Your task to perform on an android device: Clear the cart on walmart. Search for "acer nitro" on walmart, select the first entry, add it to the cart, then select checkout. Image 0: 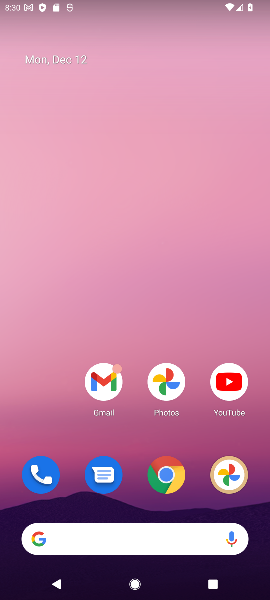
Step 0: click (167, 474)
Your task to perform on an android device: Clear the cart on walmart. Search for "acer nitro" on walmart, select the first entry, add it to the cart, then select checkout. Image 1: 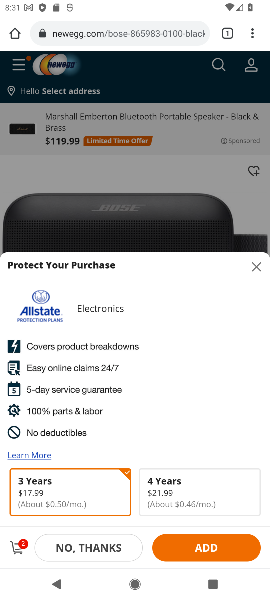
Step 1: click (168, 39)
Your task to perform on an android device: Clear the cart on walmart. Search for "acer nitro" on walmart, select the first entry, add it to the cart, then select checkout. Image 2: 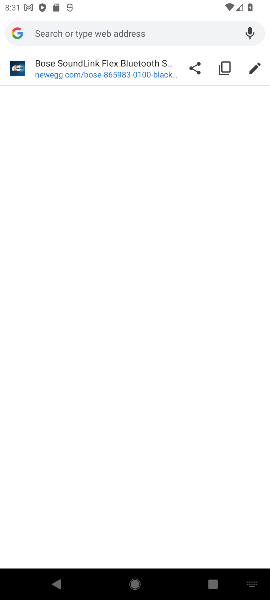
Step 2: type "walmart"
Your task to perform on an android device: Clear the cart on walmart. Search for "acer nitro" on walmart, select the first entry, add it to the cart, then select checkout. Image 3: 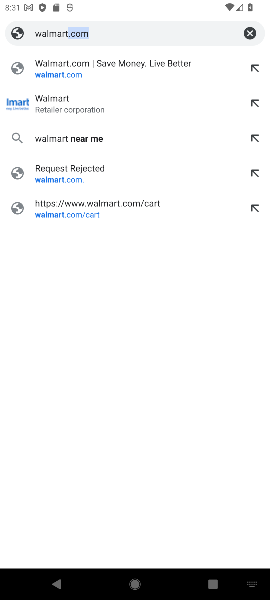
Step 3: click (41, 105)
Your task to perform on an android device: Clear the cart on walmart. Search for "acer nitro" on walmart, select the first entry, add it to the cart, then select checkout. Image 4: 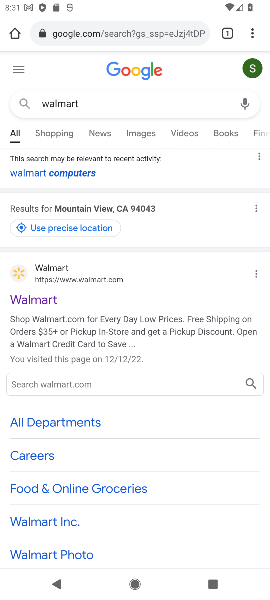
Step 4: click (42, 296)
Your task to perform on an android device: Clear the cart on walmart. Search for "acer nitro" on walmart, select the first entry, add it to the cart, then select checkout. Image 5: 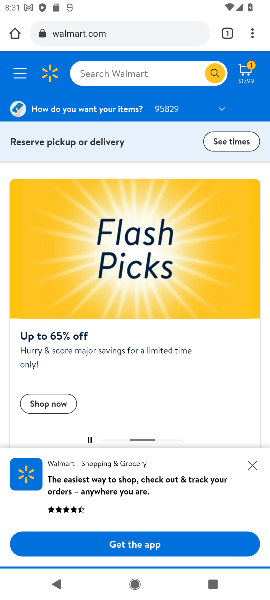
Step 5: click (155, 74)
Your task to perform on an android device: Clear the cart on walmart. Search for "acer nitro" on walmart, select the first entry, add it to the cart, then select checkout. Image 6: 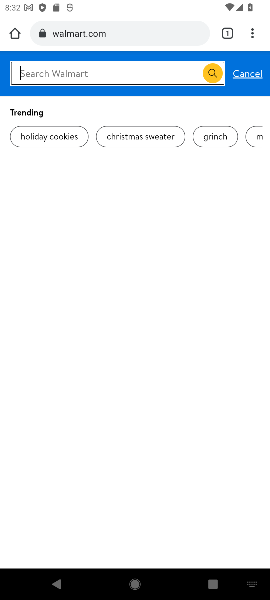
Step 6: type "acer nitro"
Your task to perform on an android device: Clear the cart on walmart. Search for "acer nitro" on walmart, select the first entry, add it to the cart, then select checkout. Image 7: 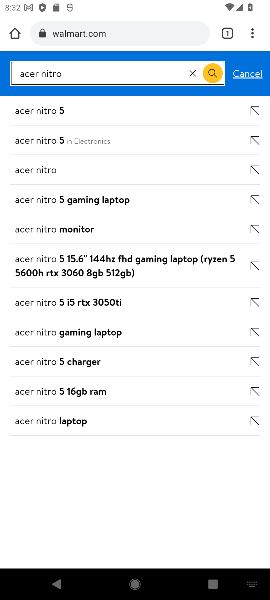
Step 7: click (48, 167)
Your task to perform on an android device: Clear the cart on walmart. Search for "acer nitro" on walmart, select the first entry, add it to the cart, then select checkout. Image 8: 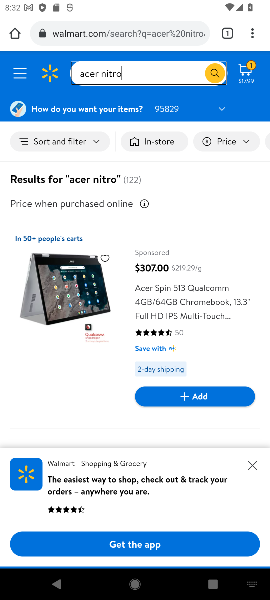
Step 8: click (186, 287)
Your task to perform on an android device: Clear the cart on walmart. Search for "acer nitro" on walmart, select the first entry, add it to the cart, then select checkout. Image 9: 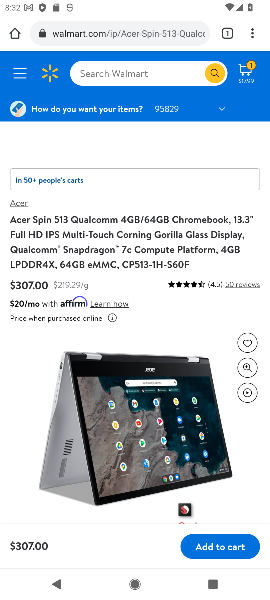
Step 9: click (207, 546)
Your task to perform on an android device: Clear the cart on walmart. Search for "acer nitro" on walmart, select the first entry, add it to the cart, then select checkout. Image 10: 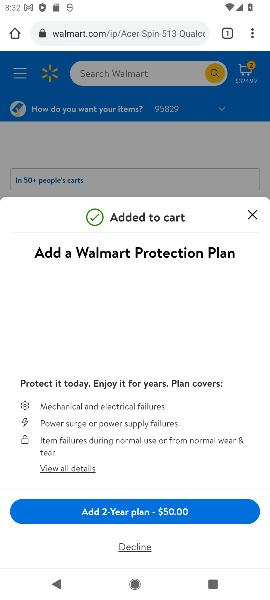
Step 10: click (136, 550)
Your task to perform on an android device: Clear the cart on walmart. Search for "acer nitro" on walmart, select the first entry, add it to the cart, then select checkout. Image 11: 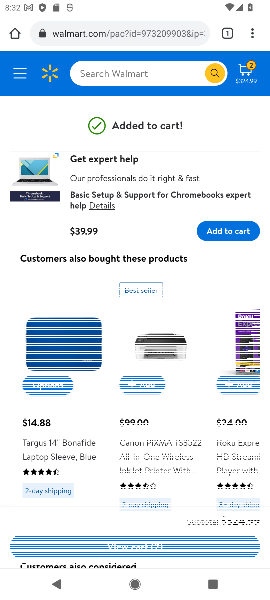
Step 11: click (249, 65)
Your task to perform on an android device: Clear the cart on walmart. Search for "acer nitro" on walmart, select the first entry, add it to the cart, then select checkout. Image 12: 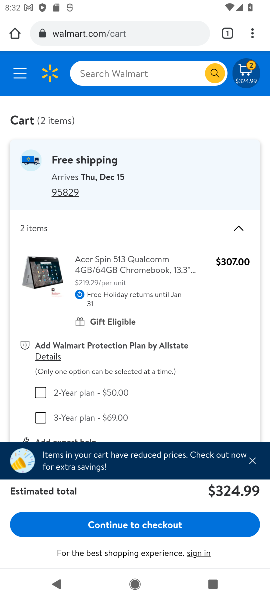
Step 12: click (143, 523)
Your task to perform on an android device: Clear the cart on walmart. Search for "acer nitro" on walmart, select the first entry, add it to the cart, then select checkout. Image 13: 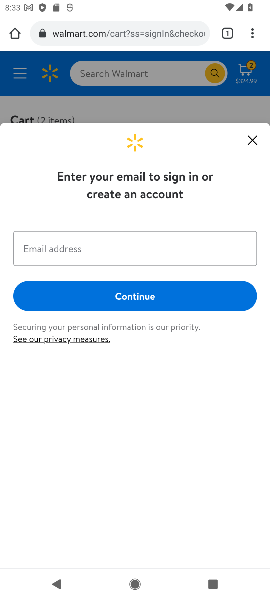
Step 13: task complete